Your task to perform on an android device: Open Reddit.com Image 0: 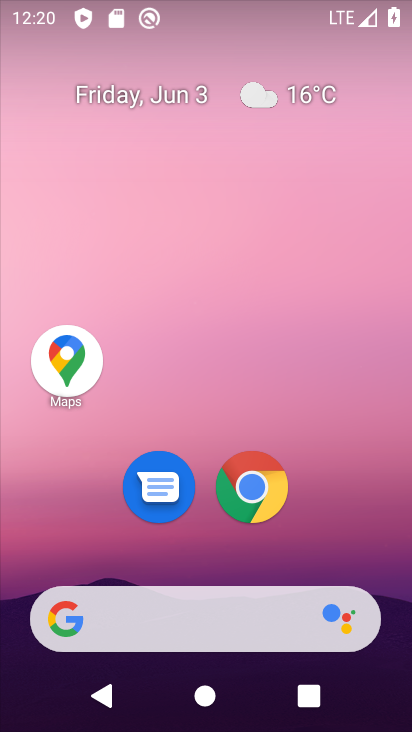
Step 0: click (250, 630)
Your task to perform on an android device: Open Reddit.com Image 1: 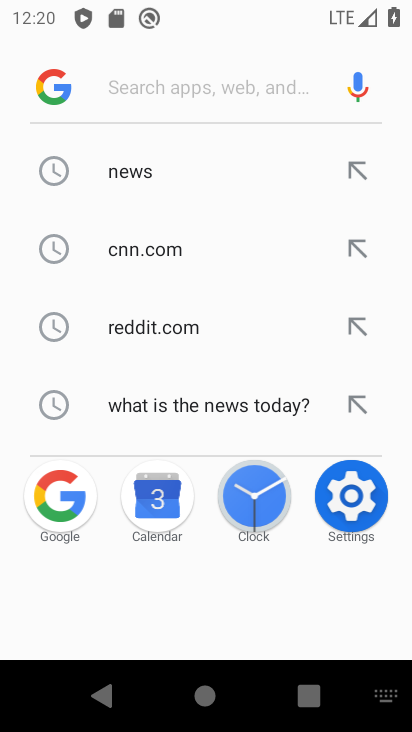
Step 1: type " Reddit.com"
Your task to perform on an android device: Open Reddit.com Image 2: 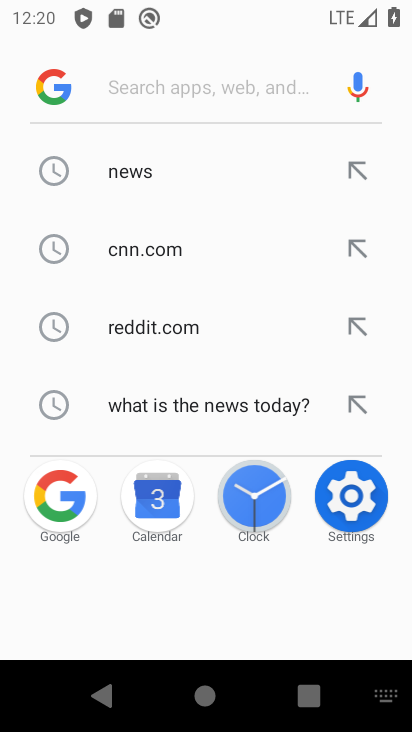
Step 2: click (156, 86)
Your task to perform on an android device: Open Reddit.com Image 3: 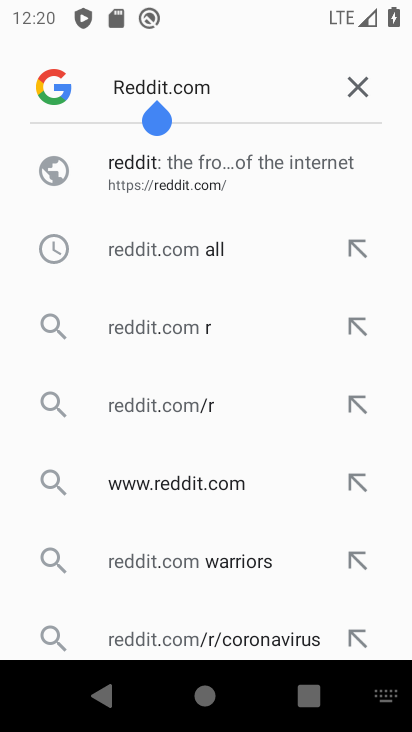
Step 3: click (172, 89)
Your task to perform on an android device: Open Reddit.com Image 4: 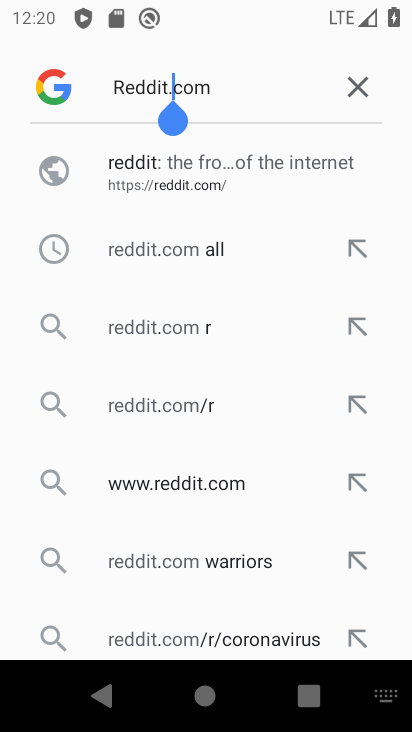
Step 4: click (154, 165)
Your task to perform on an android device: Open Reddit.com Image 5: 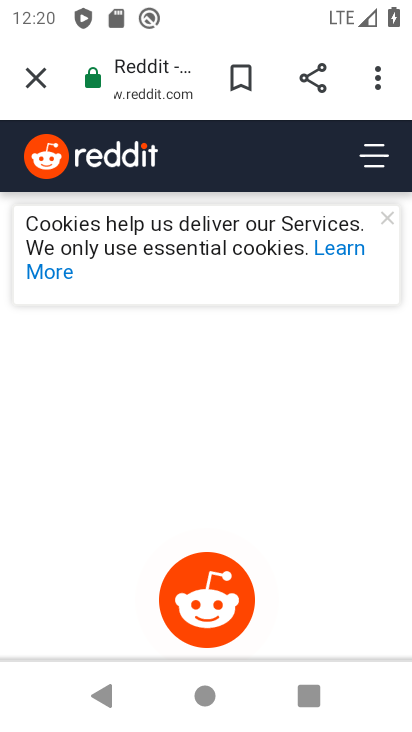
Step 5: click (385, 214)
Your task to perform on an android device: Open Reddit.com Image 6: 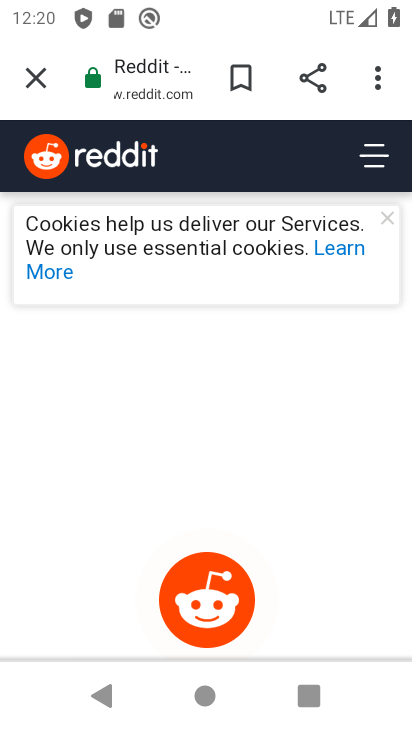
Step 6: task complete